Your task to perform on an android device: Open Yahoo.com Image 0: 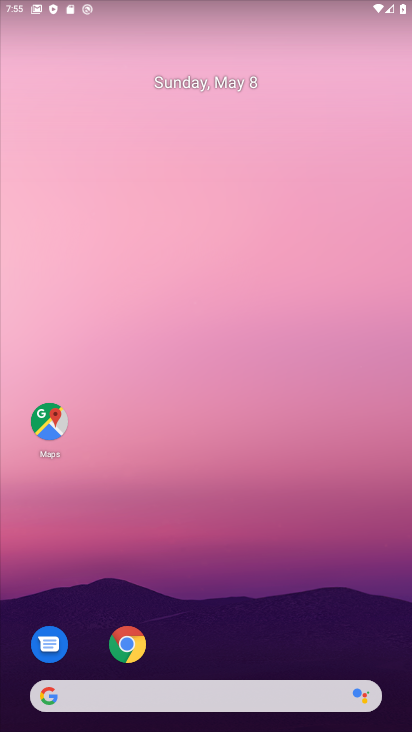
Step 0: click (127, 643)
Your task to perform on an android device: Open Yahoo.com Image 1: 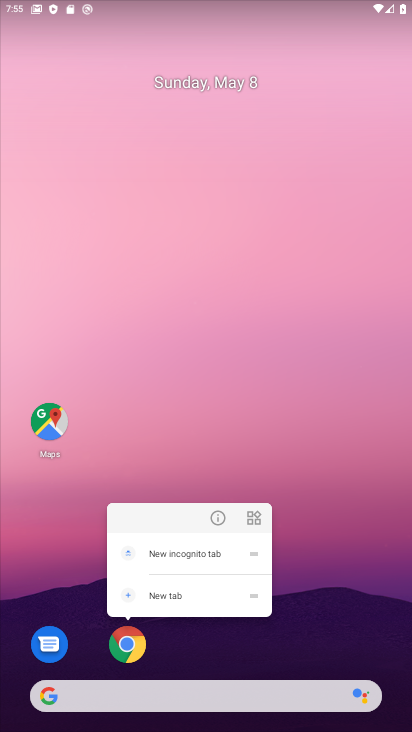
Step 1: click (126, 643)
Your task to perform on an android device: Open Yahoo.com Image 2: 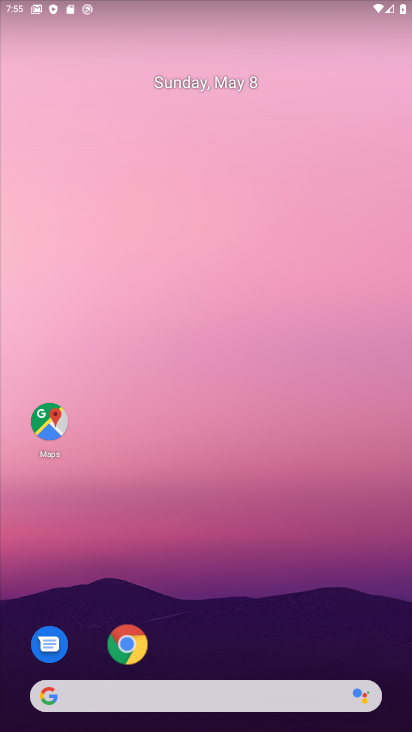
Step 2: click (126, 643)
Your task to perform on an android device: Open Yahoo.com Image 3: 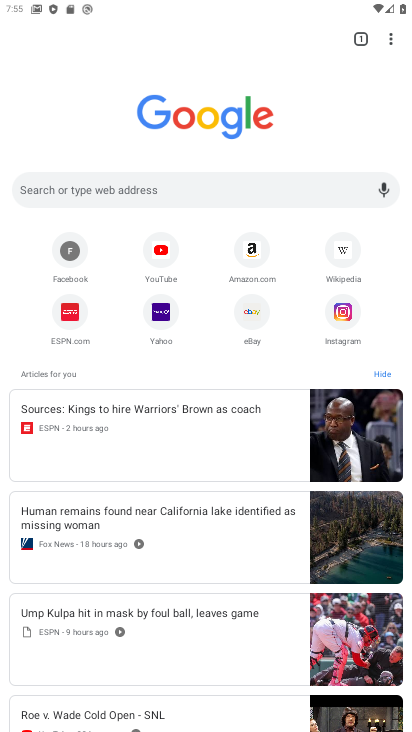
Step 3: click (155, 308)
Your task to perform on an android device: Open Yahoo.com Image 4: 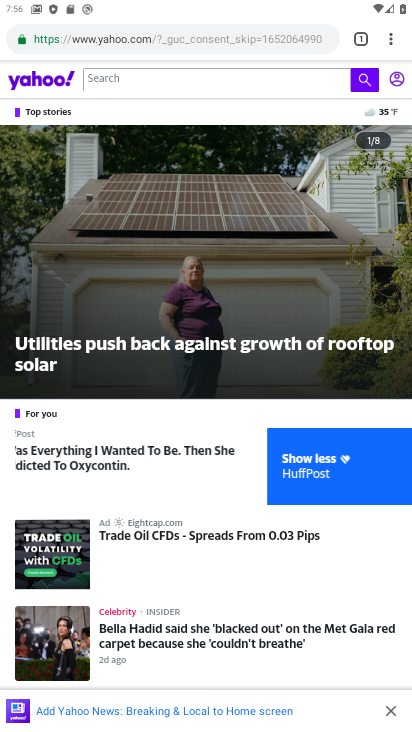
Step 4: task complete